Your task to perform on an android device: open app "Spotify" (install if not already installed), go to login, and select forgot password Image 0: 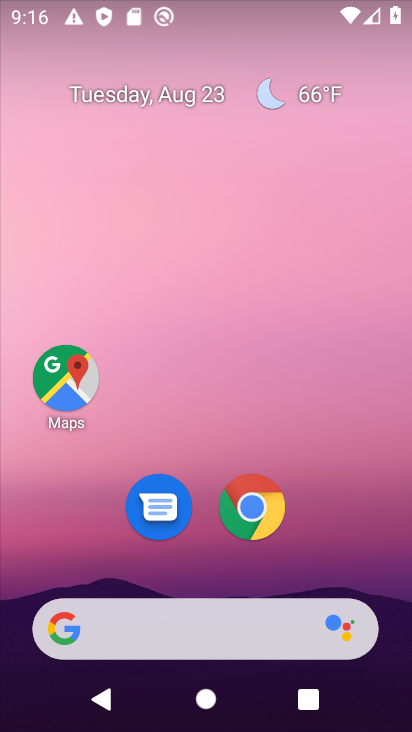
Step 0: drag from (396, 611) to (339, 62)
Your task to perform on an android device: open app "Spotify" (install if not already installed), go to login, and select forgot password Image 1: 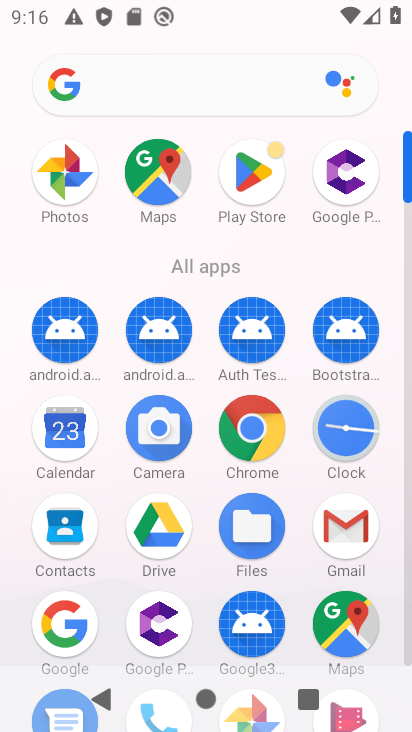
Step 1: click (410, 636)
Your task to perform on an android device: open app "Spotify" (install if not already installed), go to login, and select forgot password Image 2: 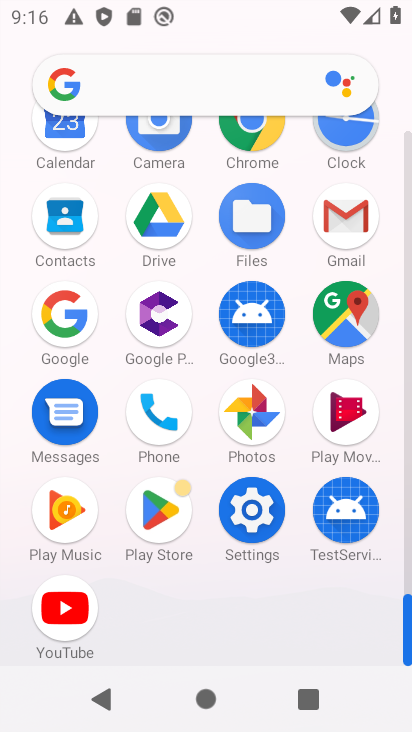
Step 2: click (163, 508)
Your task to perform on an android device: open app "Spotify" (install if not already installed), go to login, and select forgot password Image 3: 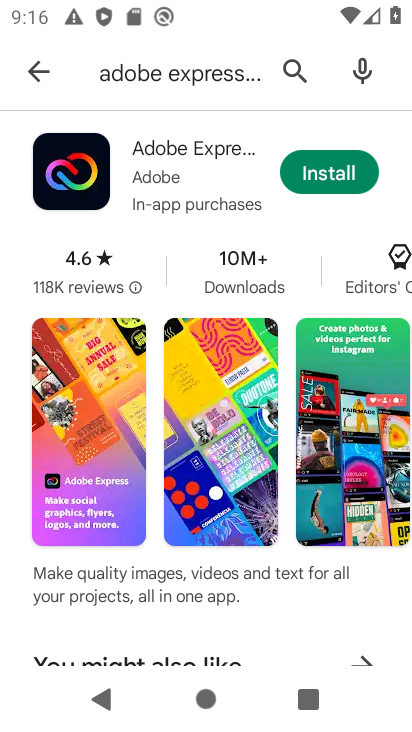
Step 3: click (290, 69)
Your task to perform on an android device: open app "Spotify" (install if not already installed), go to login, and select forgot password Image 4: 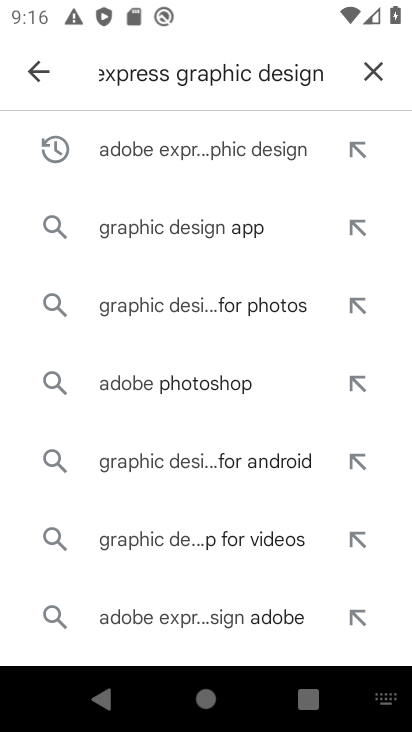
Step 4: click (375, 70)
Your task to perform on an android device: open app "Spotify" (install if not already installed), go to login, and select forgot password Image 5: 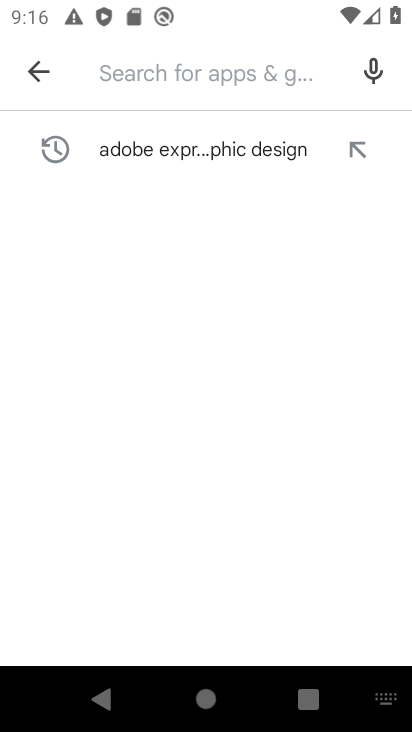
Step 5: type "Spotify"
Your task to perform on an android device: open app "Spotify" (install if not already installed), go to login, and select forgot password Image 6: 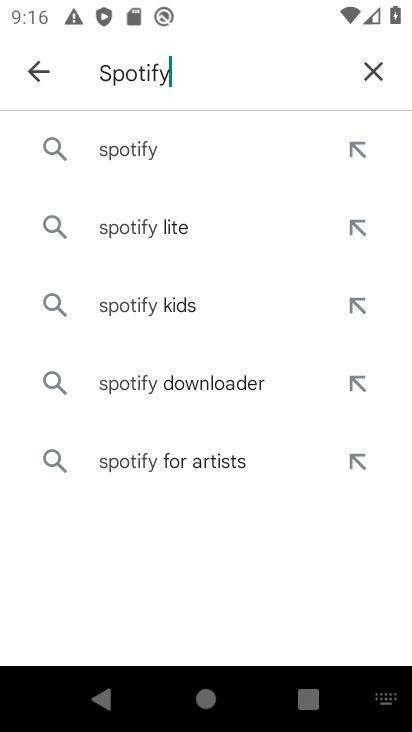
Step 6: click (123, 150)
Your task to perform on an android device: open app "Spotify" (install if not already installed), go to login, and select forgot password Image 7: 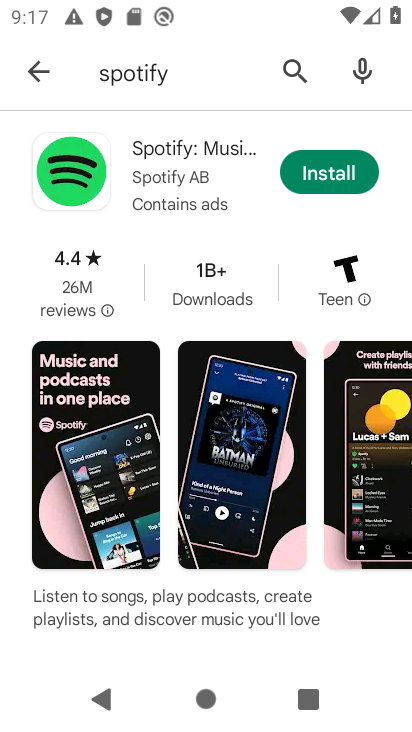
Step 7: click (329, 172)
Your task to perform on an android device: open app "Spotify" (install if not already installed), go to login, and select forgot password Image 8: 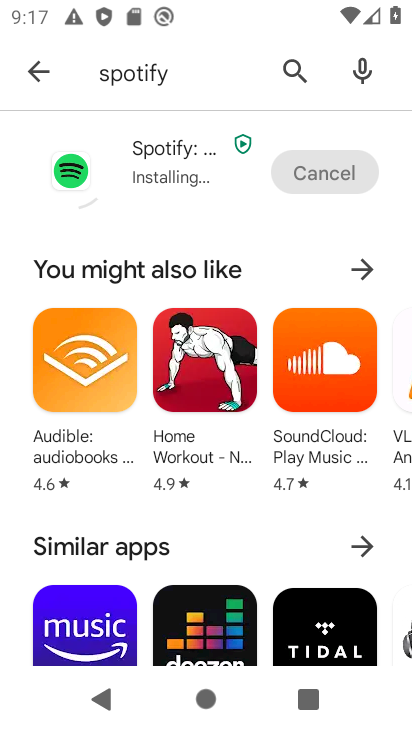
Step 8: click (148, 149)
Your task to perform on an android device: open app "Spotify" (install if not already installed), go to login, and select forgot password Image 9: 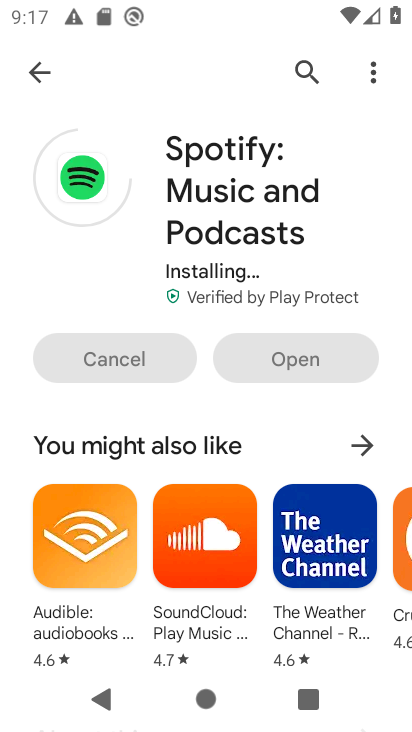
Step 9: click (208, 378)
Your task to perform on an android device: open app "Spotify" (install if not already installed), go to login, and select forgot password Image 10: 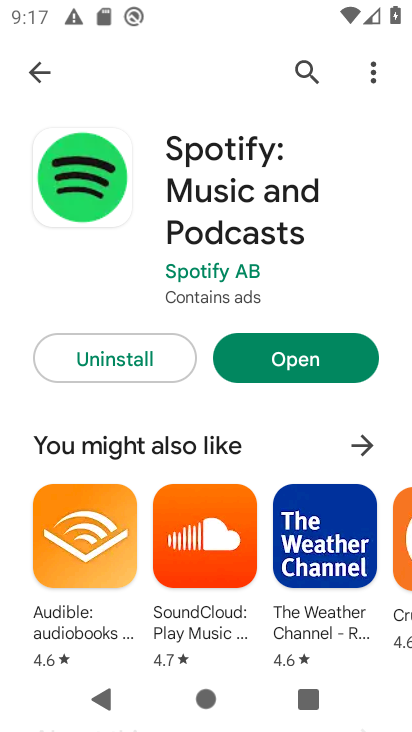
Step 10: click (289, 365)
Your task to perform on an android device: open app "Spotify" (install if not already installed), go to login, and select forgot password Image 11: 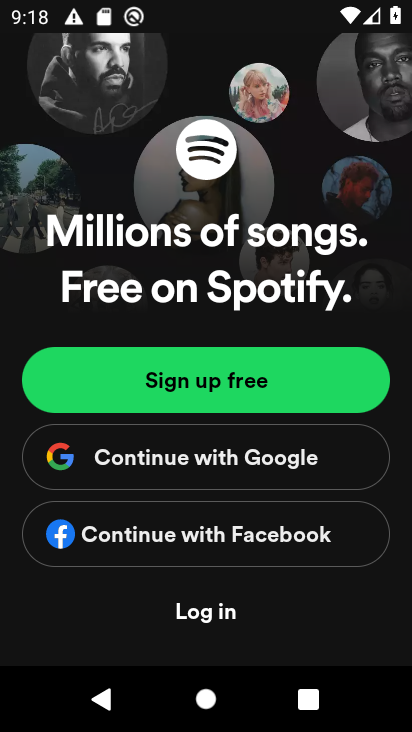
Step 11: click (216, 618)
Your task to perform on an android device: open app "Spotify" (install if not already installed), go to login, and select forgot password Image 12: 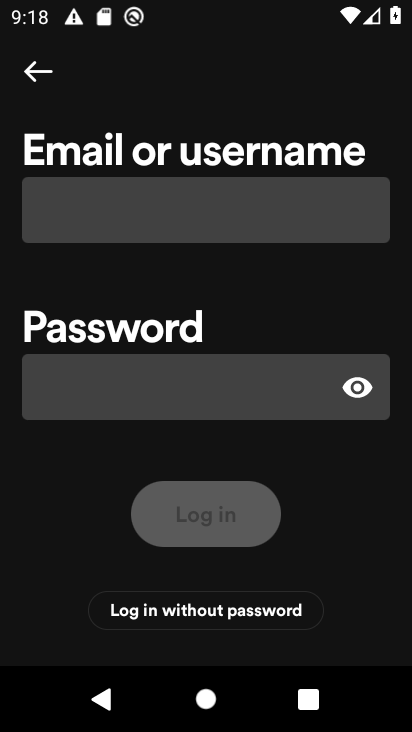
Step 12: task complete